Your task to perform on an android device: Search for pizza restaurants on Maps Image 0: 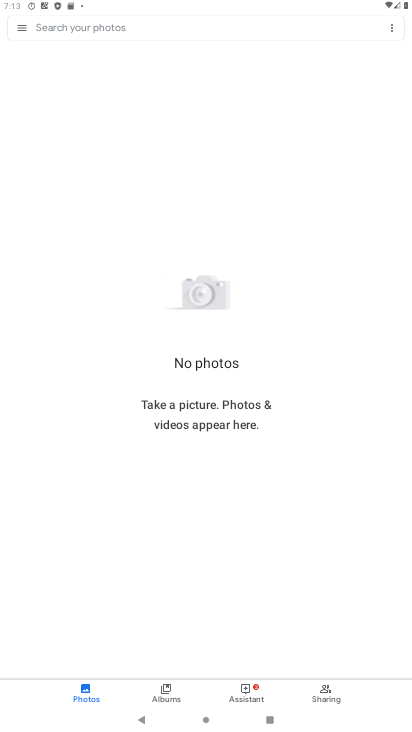
Step 0: press home button
Your task to perform on an android device: Search for pizza restaurants on Maps Image 1: 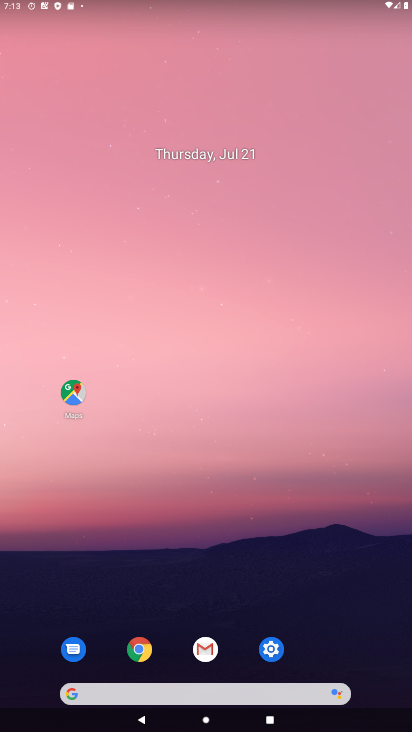
Step 1: click (81, 389)
Your task to perform on an android device: Search for pizza restaurants on Maps Image 2: 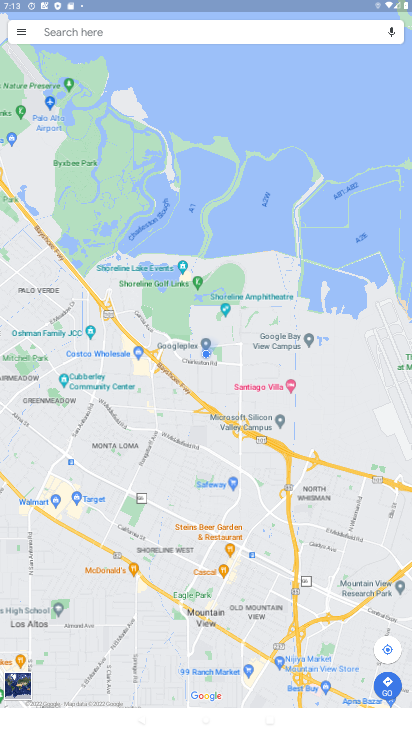
Step 2: click (163, 38)
Your task to perform on an android device: Search for pizza restaurants on Maps Image 3: 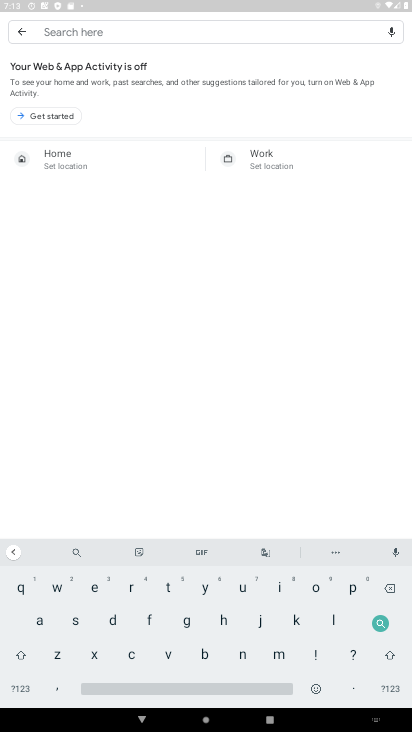
Step 3: click (356, 588)
Your task to perform on an android device: Search for pizza restaurants on Maps Image 4: 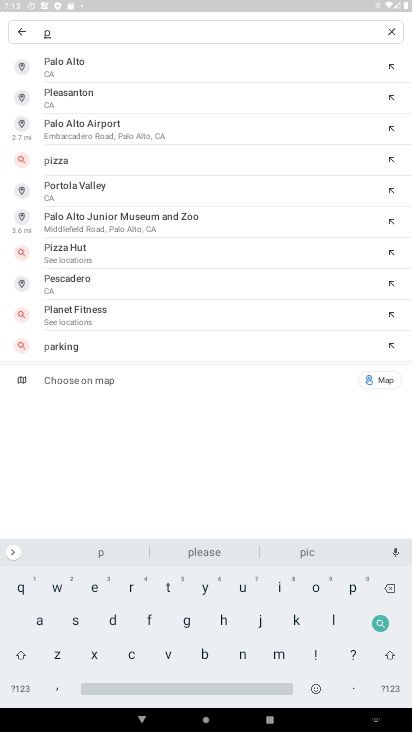
Step 4: click (277, 590)
Your task to perform on an android device: Search for pizza restaurants on Maps Image 5: 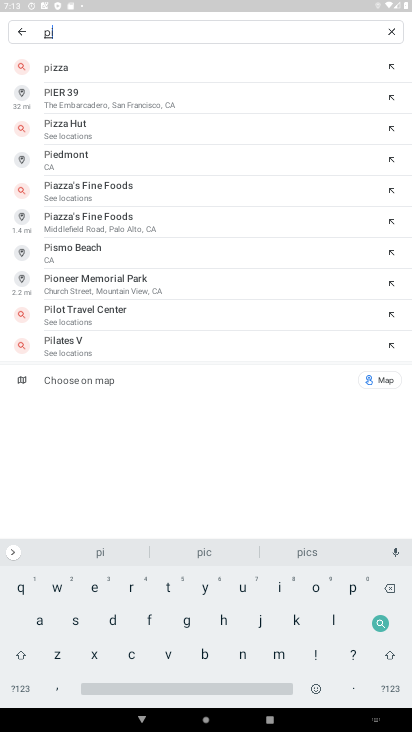
Step 5: click (55, 649)
Your task to perform on an android device: Search for pizza restaurants on Maps Image 6: 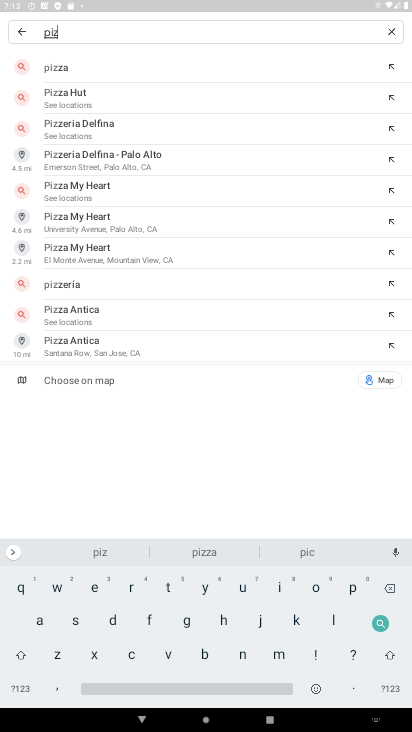
Step 6: click (61, 649)
Your task to perform on an android device: Search for pizza restaurants on Maps Image 7: 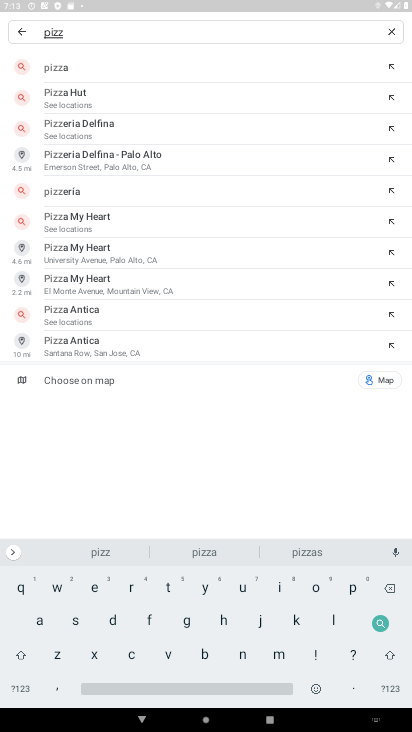
Step 7: click (193, 556)
Your task to perform on an android device: Search for pizza restaurants on Maps Image 8: 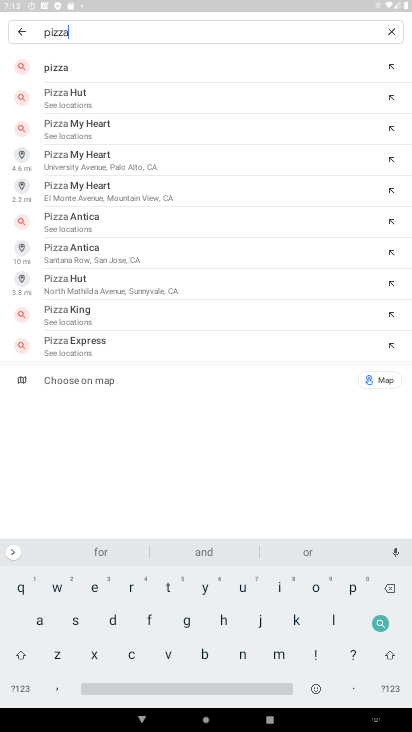
Step 8: click (129, 594)
Your task to perform on an android device: Search for pizza restaurants on Maps Image 9: 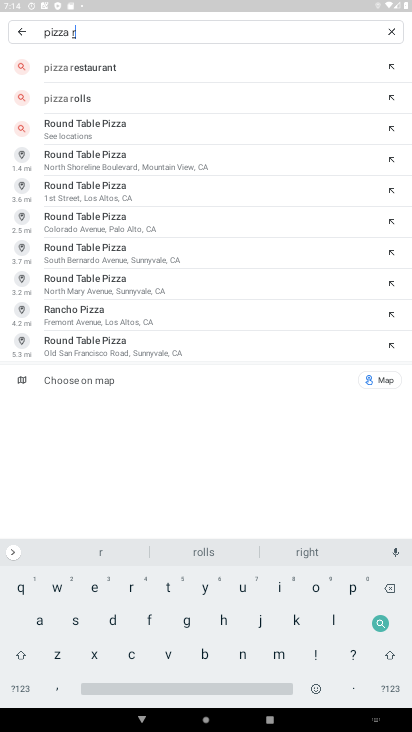
Step 9: click (99, 60)
Your task to perform on an android device: Search for pizza restaurants on Maps Image 10: 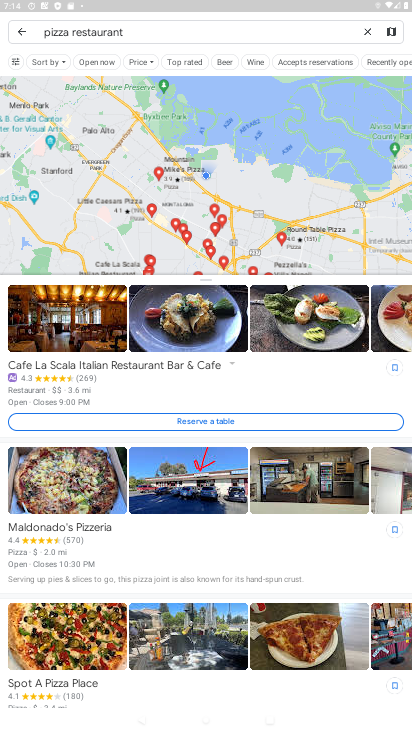
Step 10: task complete